Your task to perform on an android device: Show me recent news Image 0: 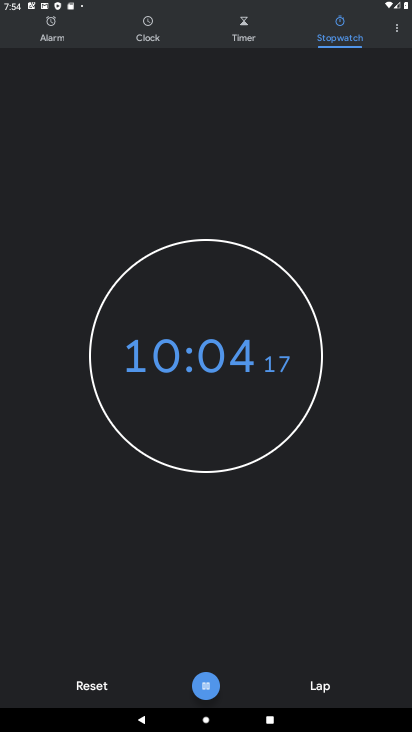
Step 0: press home button
Your task to perform on an android device: Show me recent news Image 1: 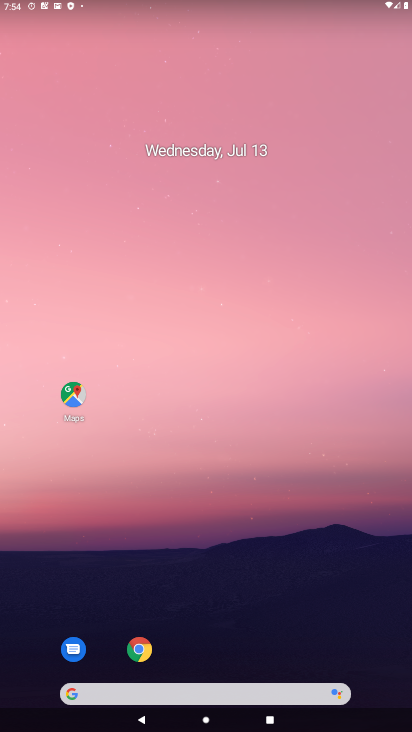
Step 1: click (237, 689)
Your task to perform on an android device: Show me recent news Image 2: 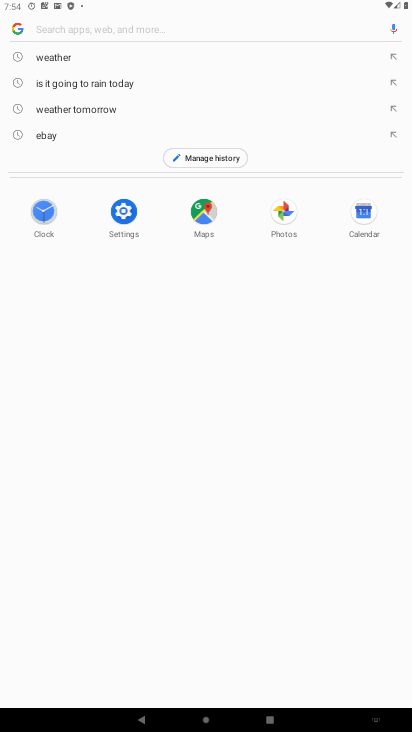
Step 2: type ""
Your task to perform on an android device: Show me recent news Image 3: 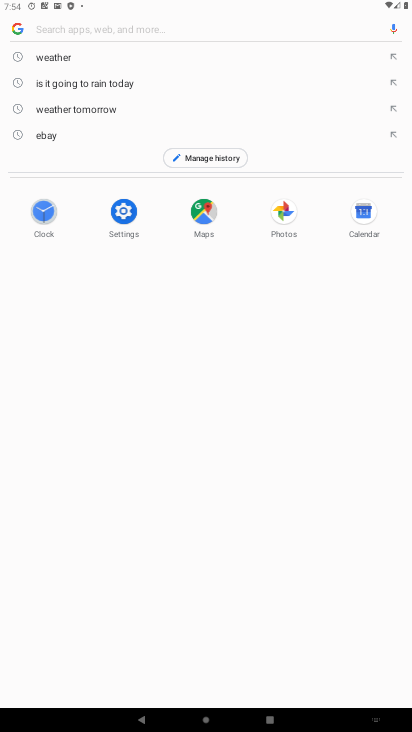
Step 3: type "recent news"
Your task to perform on an android device: Show me recent news Image 4: 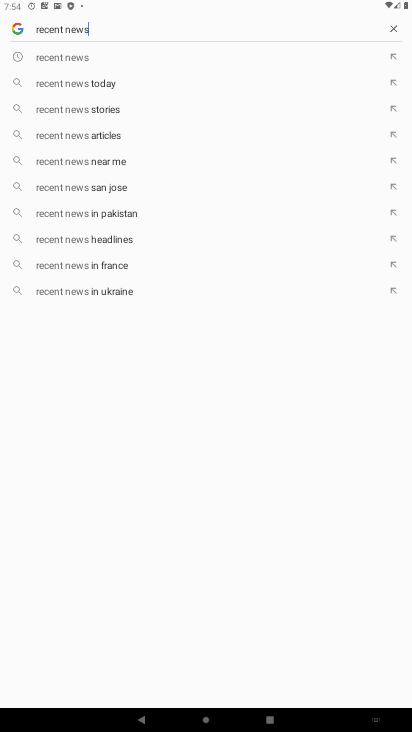
Step 4: click (66, 59)
Your task to perform on an android device: Show me recent news Image 5: 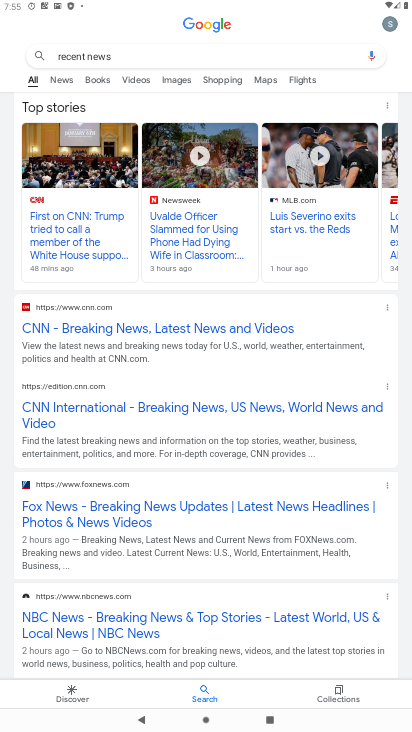
Step 5: task complete